Your task to perform on an android device: Open network settings Image 0: 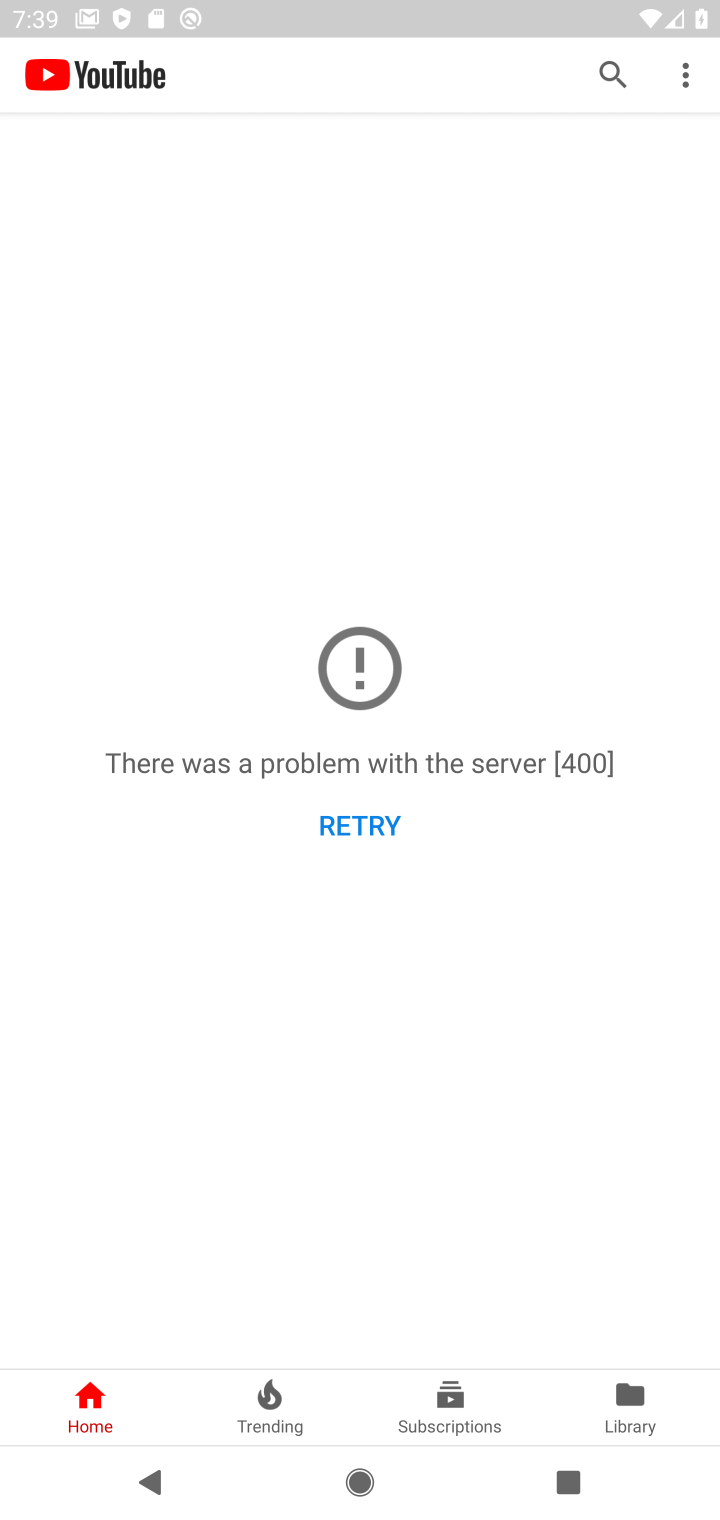
Step 0: press home button
Your task to perform on an android device: Open network settings Image 1: 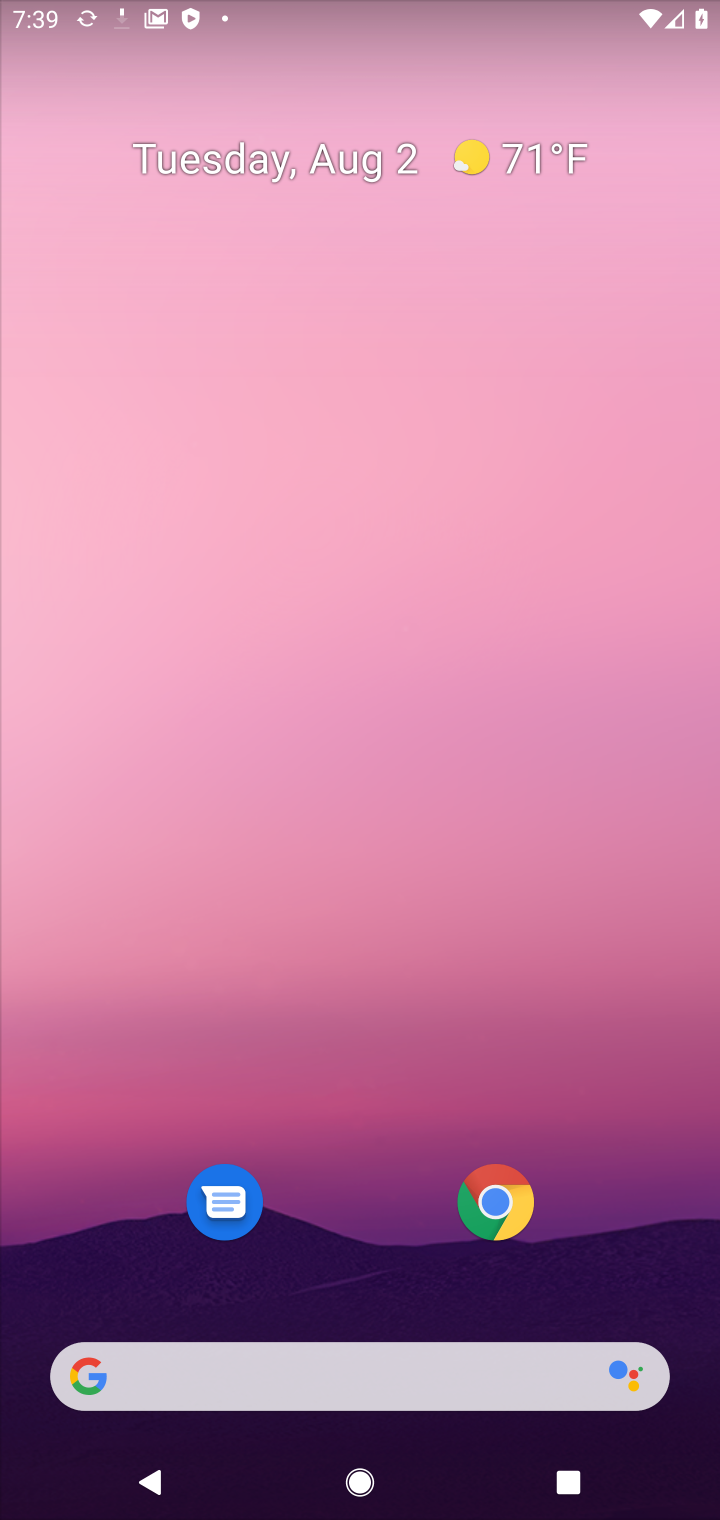
Step 1: drag from (330, 993) to (345, 2)
Your task to perform on an android device: Open network settings Image 2: 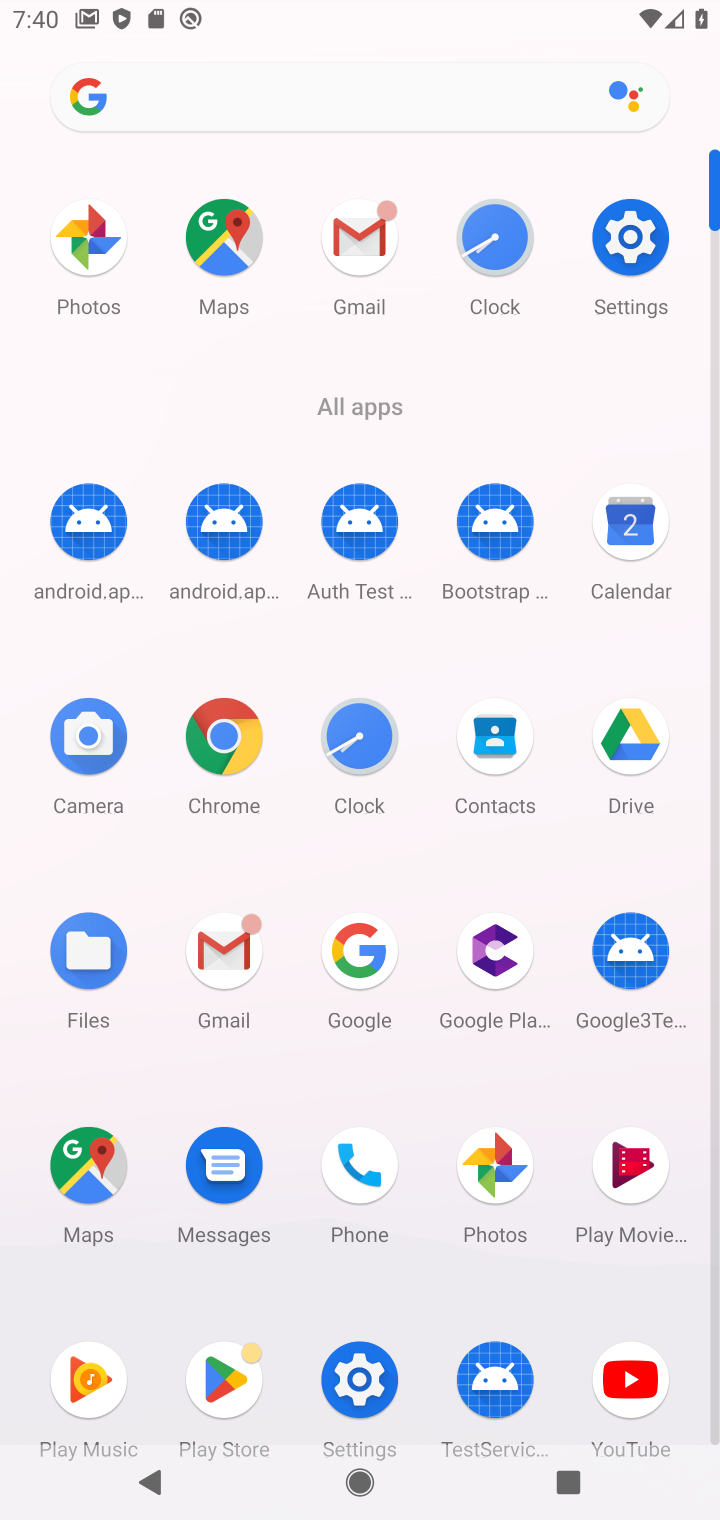
Step 2: click (645, 228)
Your task to perform on an android device: Open network settings Image 3: 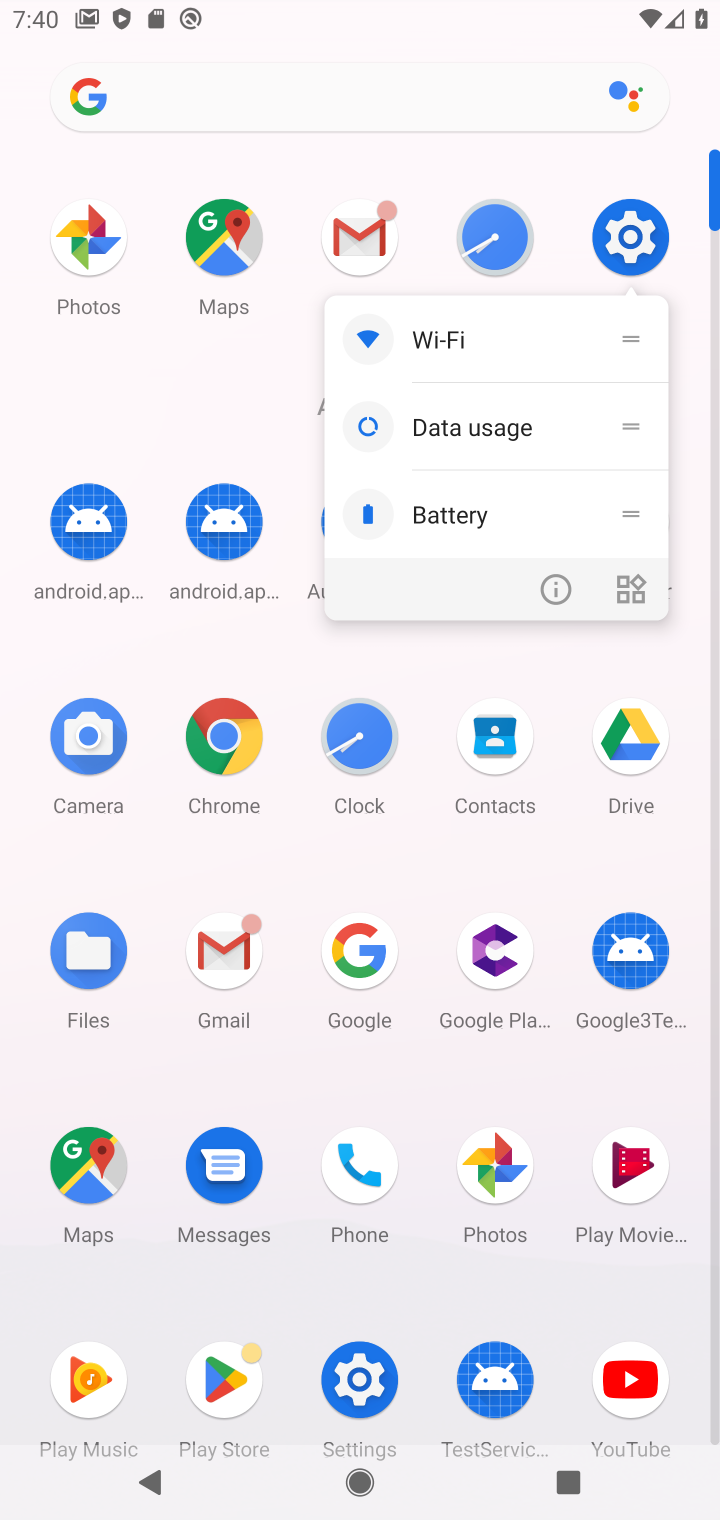
Step 3: click (627, 232)
Your task to perform on an android device: Open network settings Image 4: 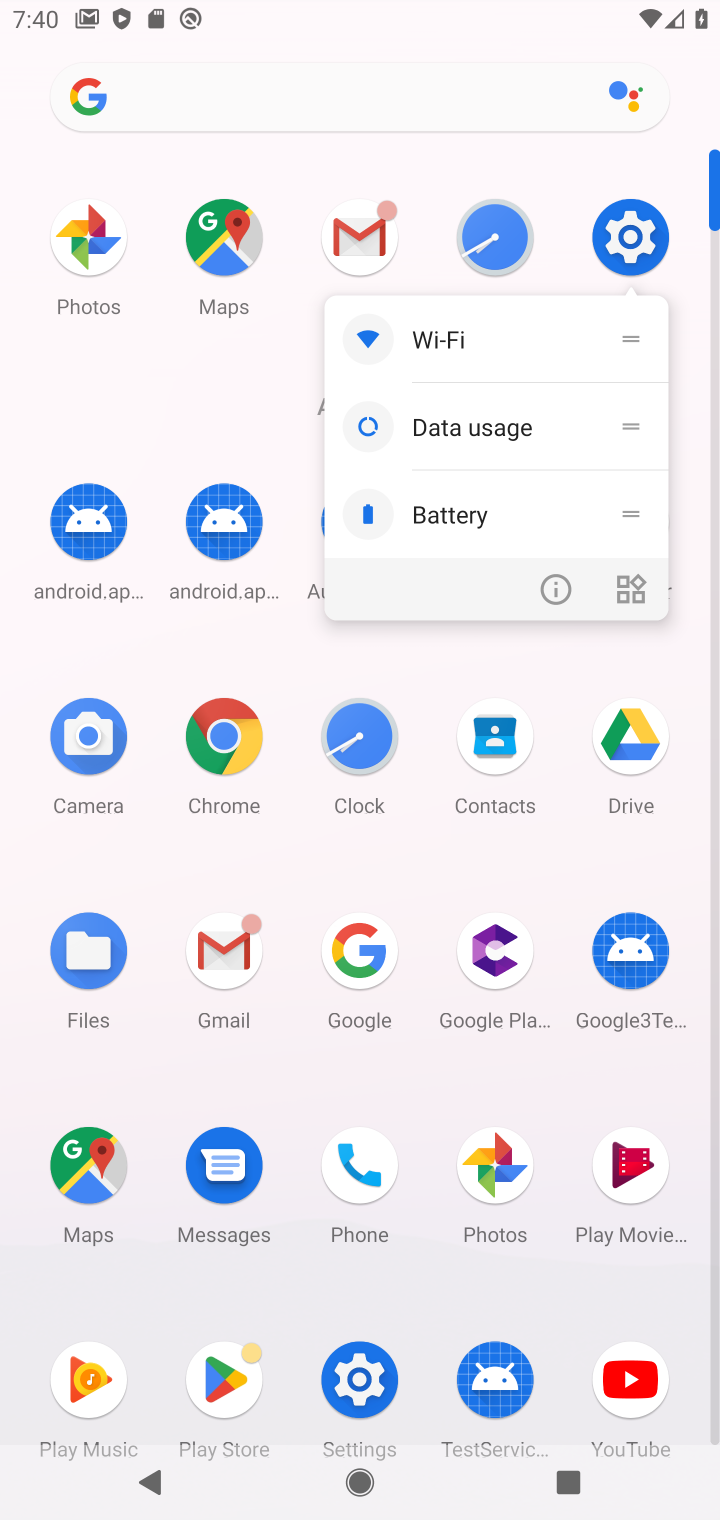
Step 4: click (634, 237)
Your task to perform on an android device: Open network settings Image 5: 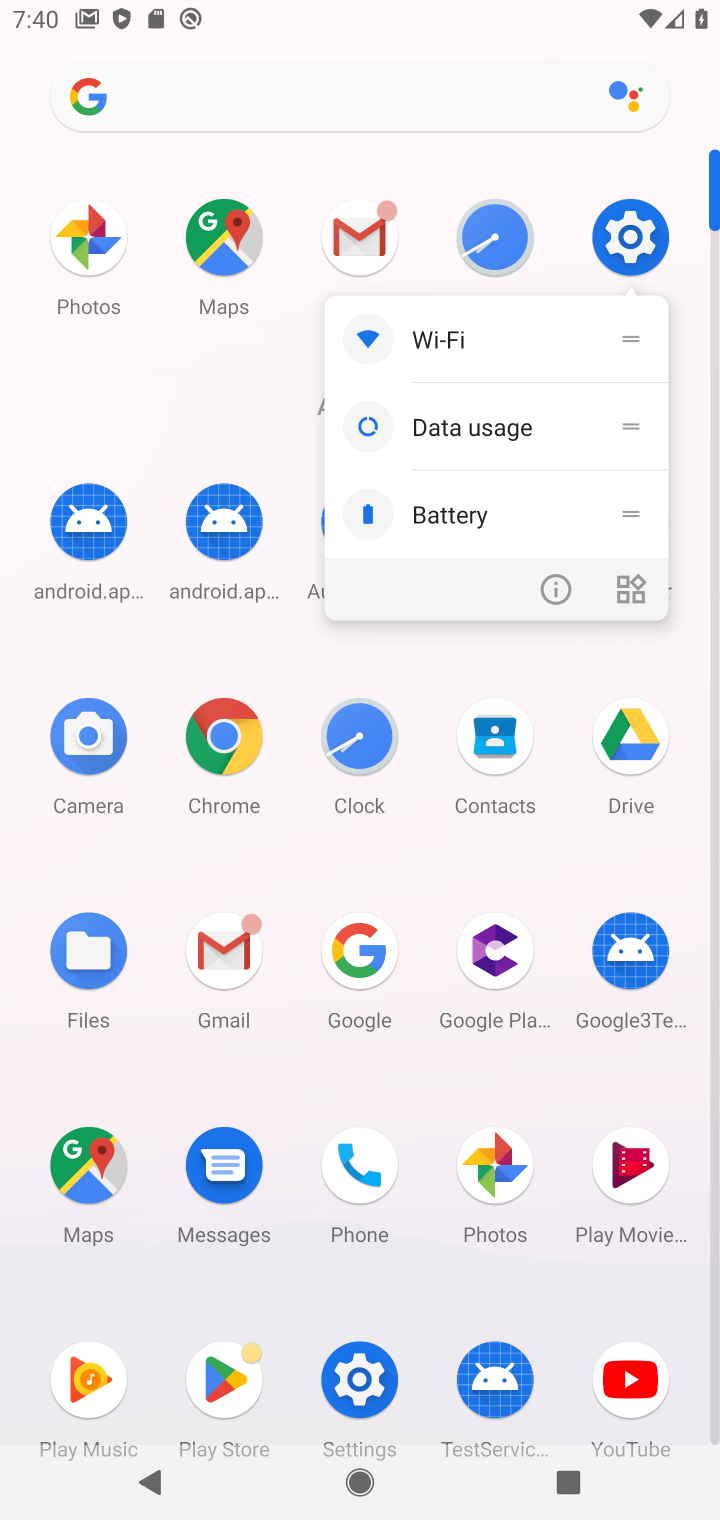
Step 5: click (634, 237)
Your task to perform on an android device: Open network settings Image 6: 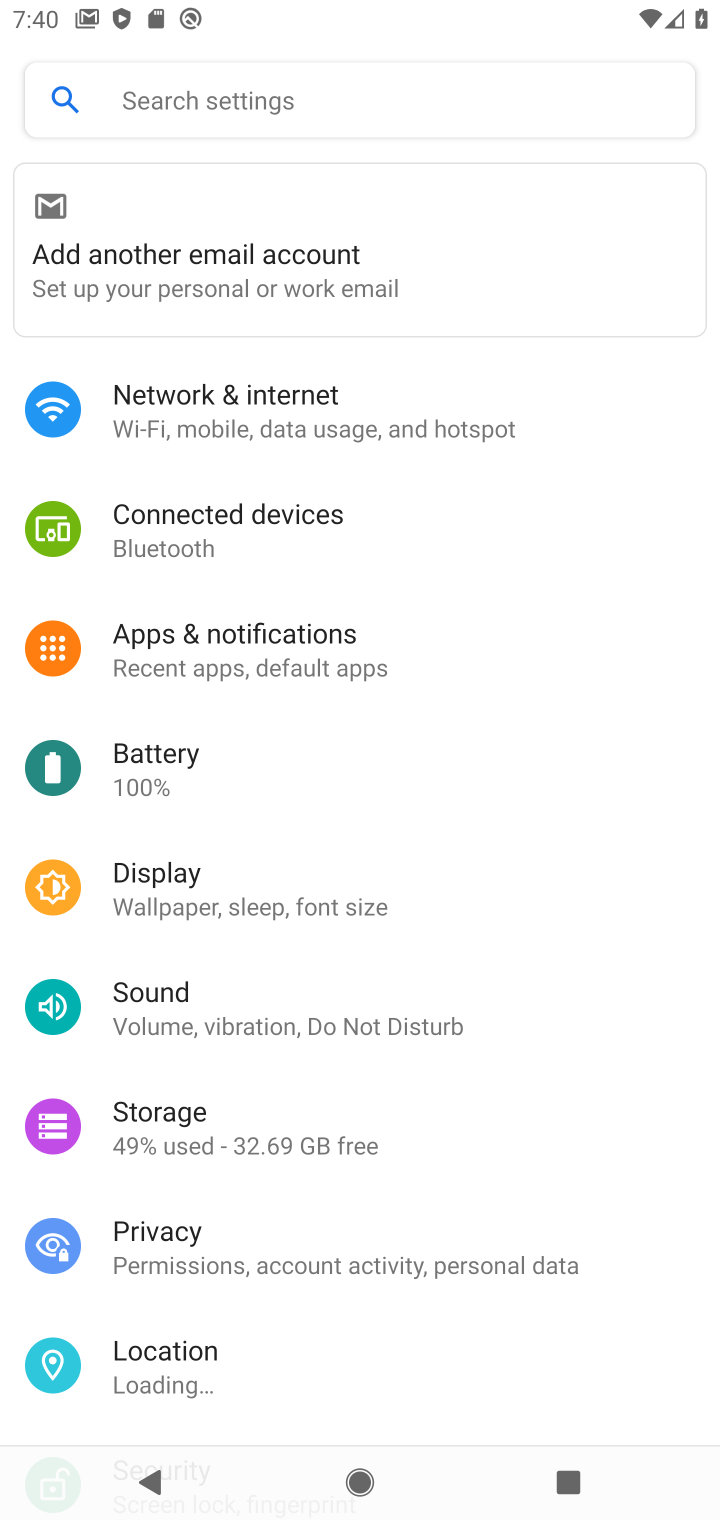
Step 6: click (168, 420)
Your task to perform on an android device: Open network settings Image 7: 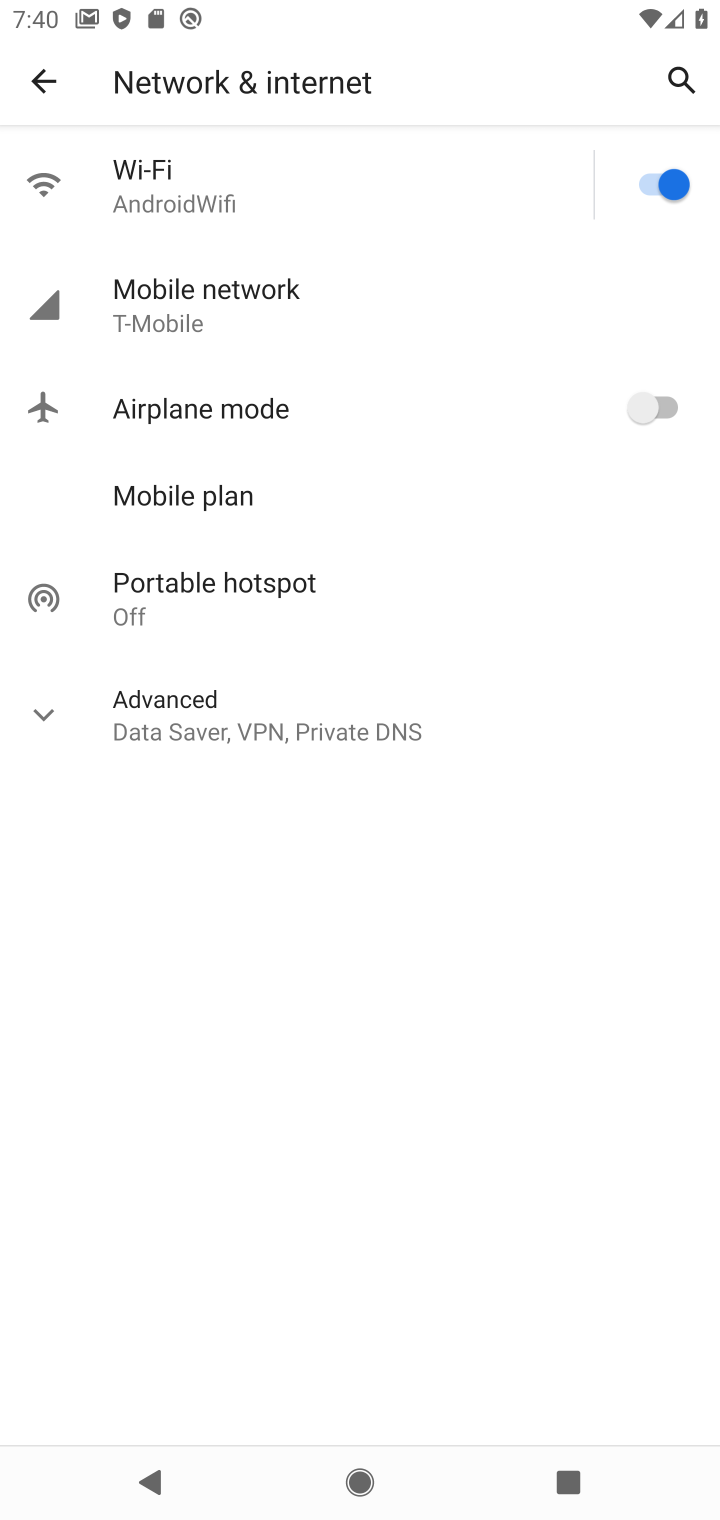
Step 7: click (162, 320)
Your task to perform on an android device: Open network settings Image 8: 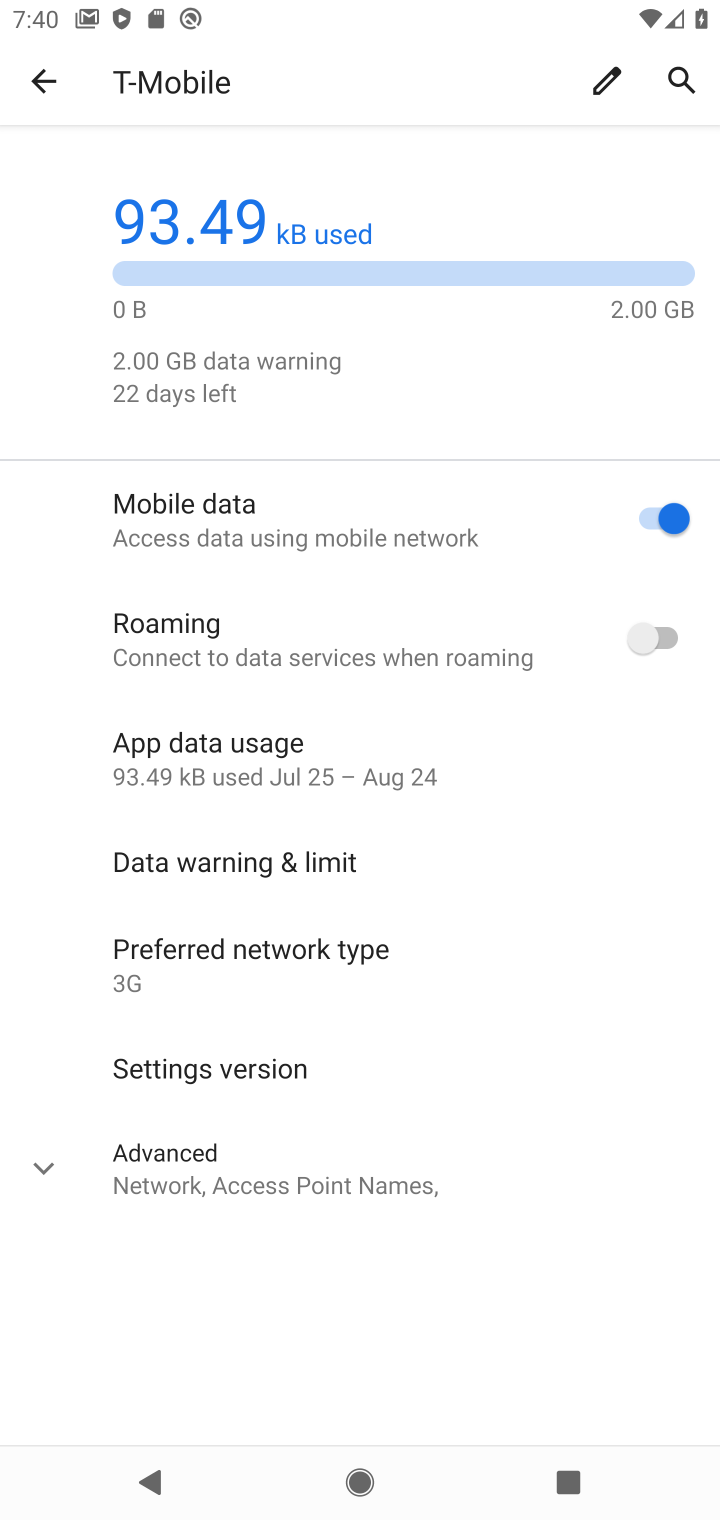
Step 8: click (40, 1173)
Your task to perform on an android device: Open network settings Image 9: 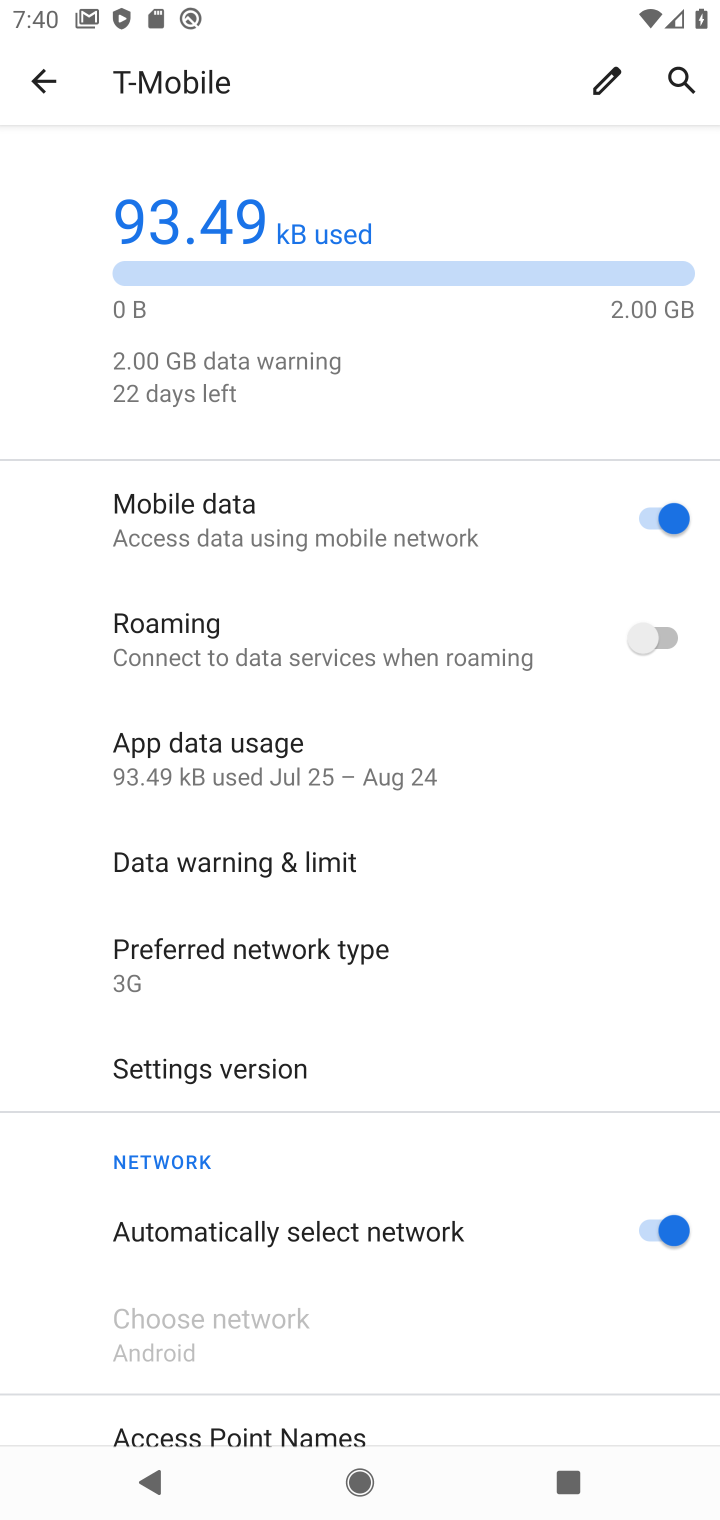
Step 9: task complete